Your task to perform on an android device: Search for Italian restaurants on Maps Image 0: 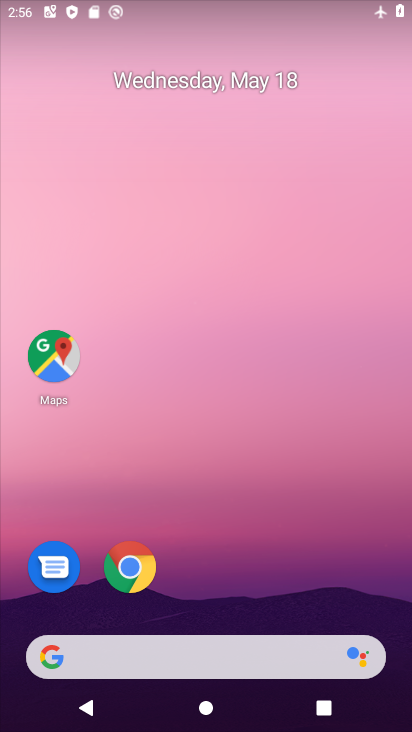
Step 0: click (34, 329)
Your task to perform on an android device: Search for Italian restaurants on Maps Image 1: 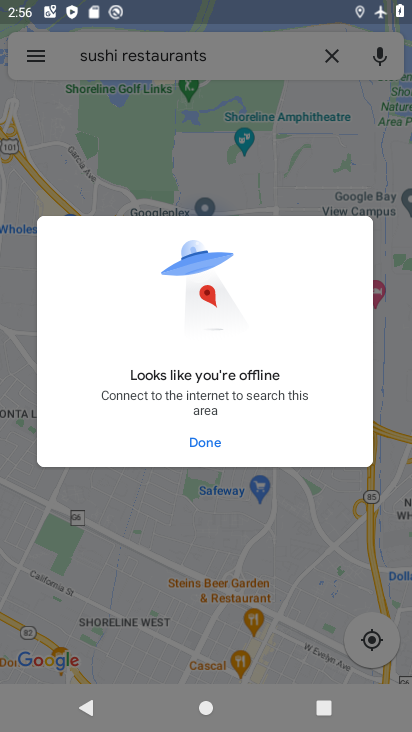
Step 1: click (219, 434)
Your task to perform on an android device: Search for Italian restaurants on Maps Image 2: 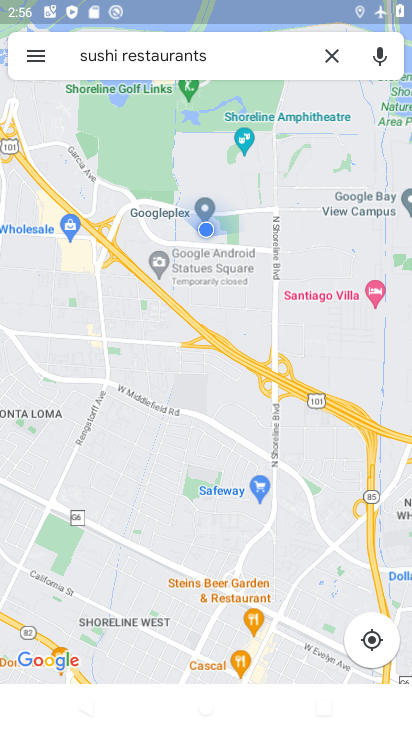
Step 2: click (331, 51)
Your task to perform on an android device: Search for Italian restaurants on Maps Image 3: 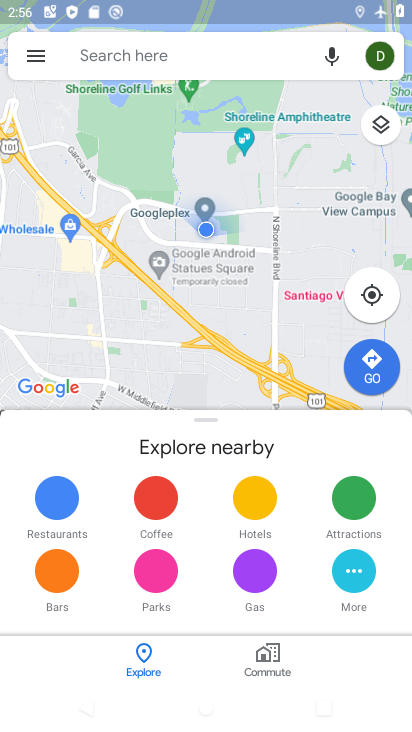
Step 3: click (243, 52)
Your task to perform on an android device: Search for Italian restaurants on Maps Image 4: 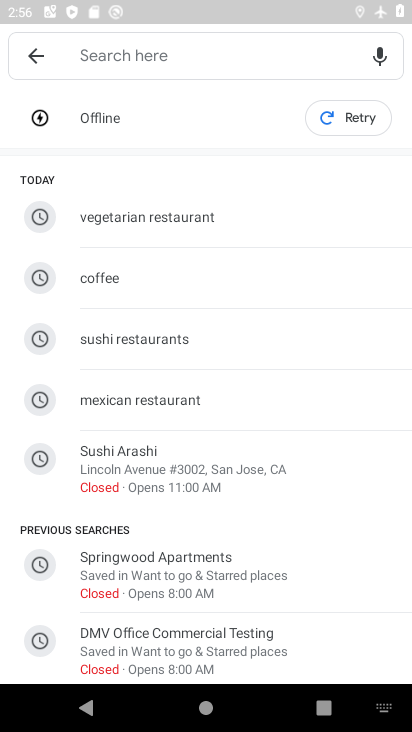
Step 4: click (227, 45)
Your task to perform on an android device: Search for Italian restaurants on Maps Image 5: 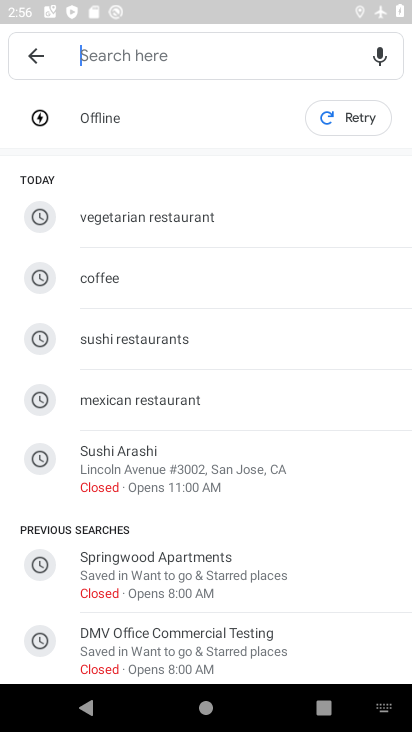
Step 5: type " Italian restaurants"
Your task to perform on an android device: Search for Italian restaurants on Maps Image 6: 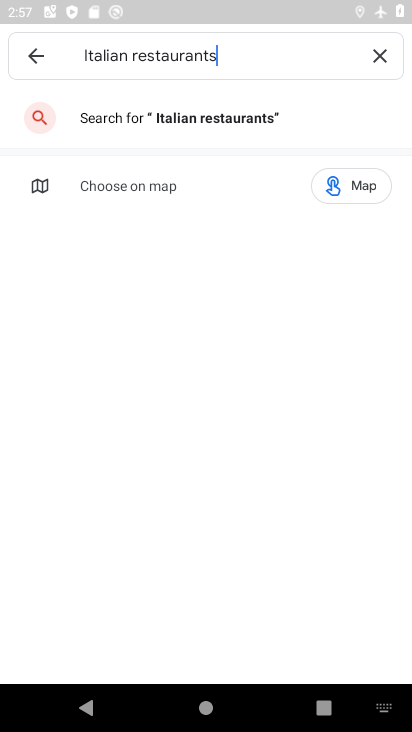
Step 6: click (241, 120)
Your task to perform on an android device: Search for Italian restaurants on Maps Image 7: 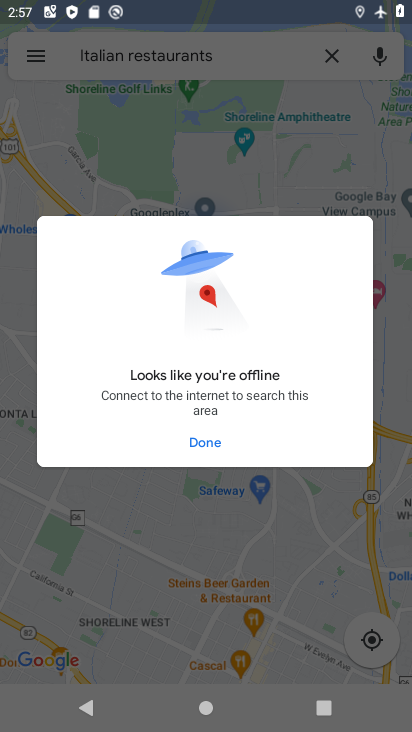
Step 7: task complete